Your task to perform on an android device: Go to display settings Image 0: 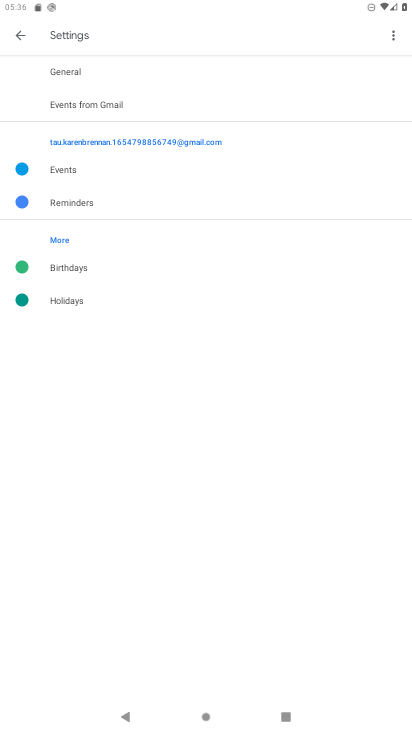
Step 0: press home button
Your task to perform on an android device: Go to display settings Image 1: 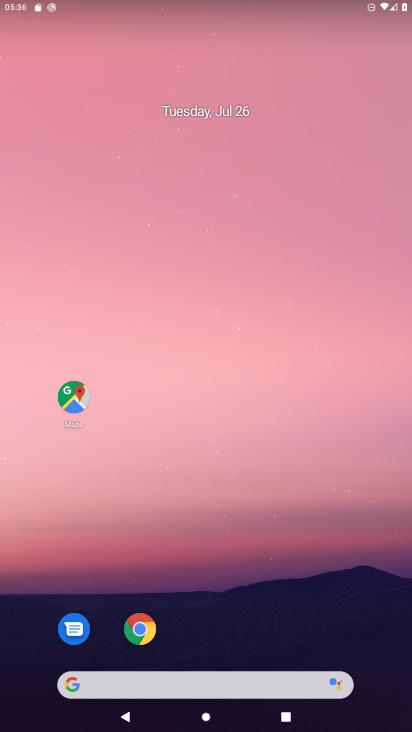
Step 1: drag from (186, 546) to (188, 109)
Your task to perform on an android device: Go to display settings Image 2: 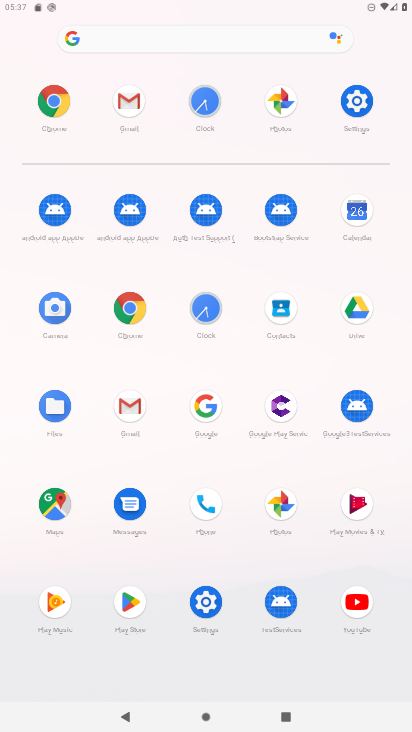
Step 2: click (208, 603)
Your task to perform on an android device: Go to display settings Image 3: 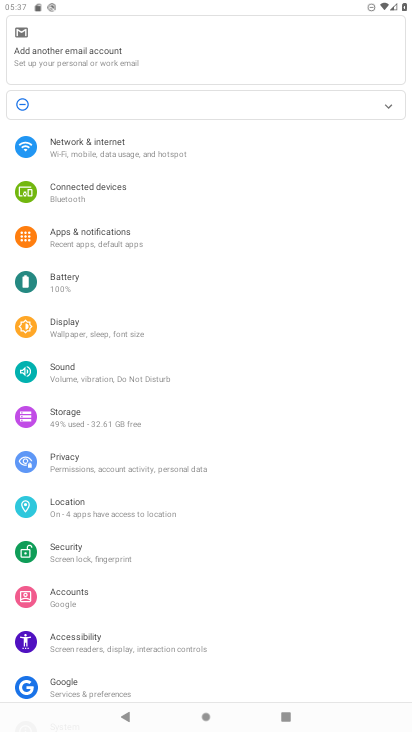
Step 3: click (102, 331)
Your task to perform on an android device: Go to display settings Image 4: 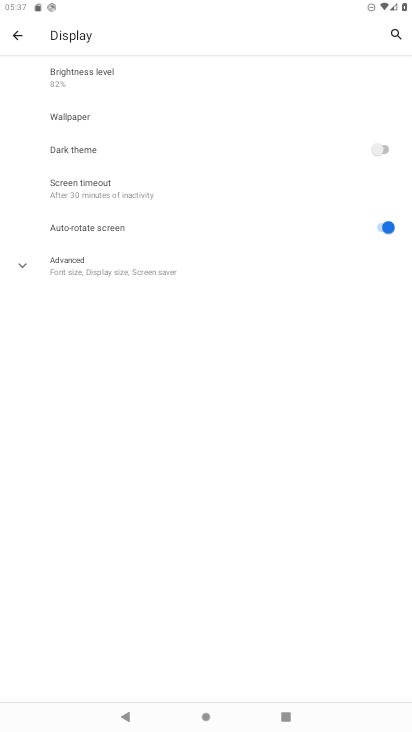
Step 4: task complete